Your task to perform on an android device: What is the recent news? Image 0: 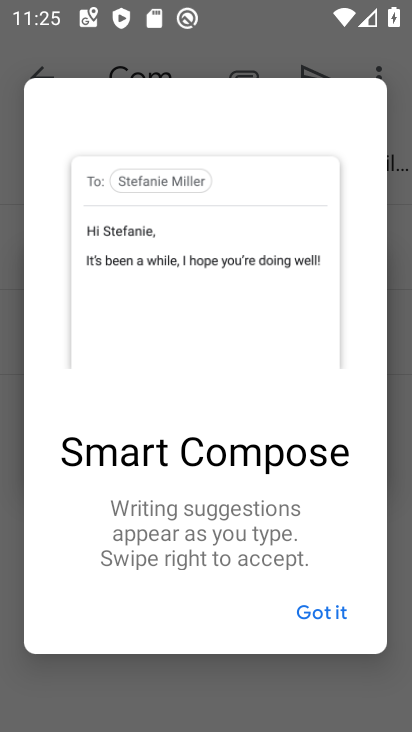
Step 0: press home button
Your task to perform on an android device: What is the recent news? Image 1: 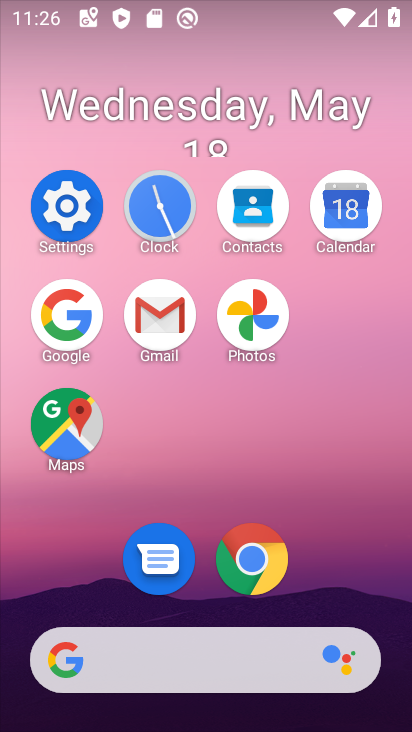
Step 1: click (90, 317)
Your task to perform on an android device: What is the recent news? Image 2: 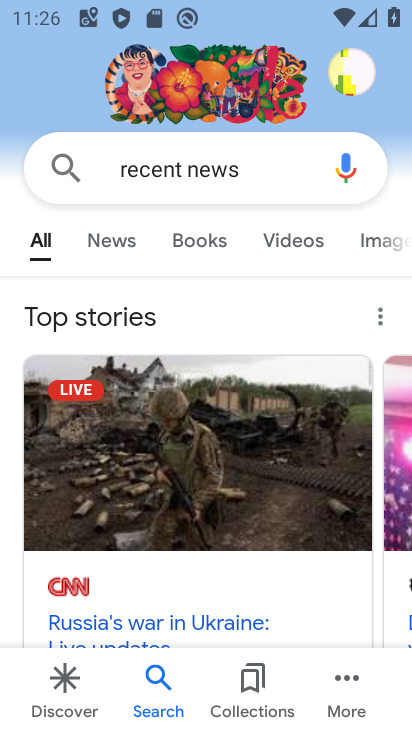
Step 2: task complete